Your task to perform on an android device: change timer sound Image 0: 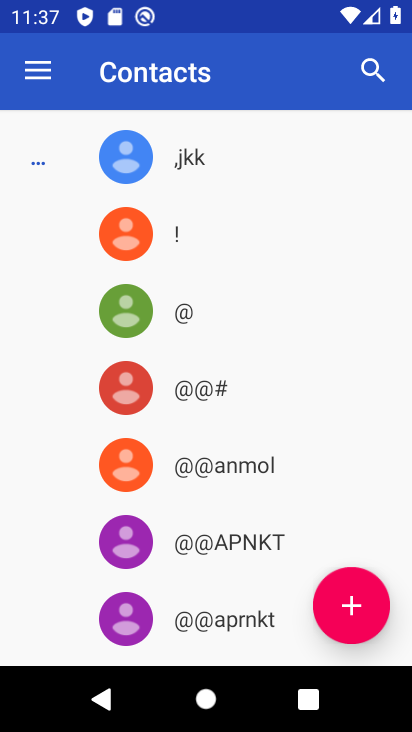
Step 0: press home button
Your task to perform on an android device: change timer sound Image 1: 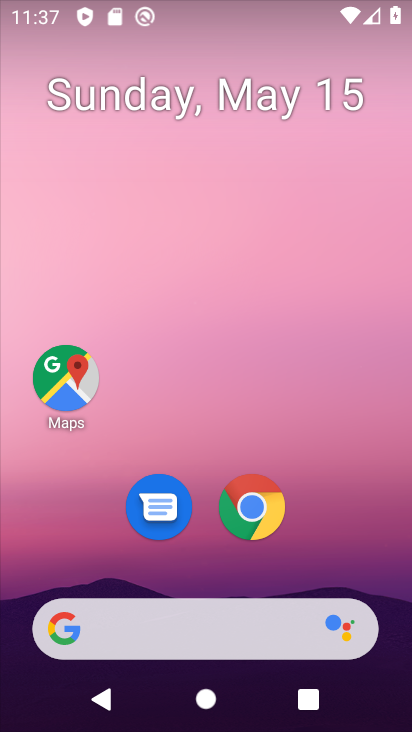
Step 1: drag from (368, 559) to (329, 15)
Your task to perform on an android device: change timer sound Image 2: 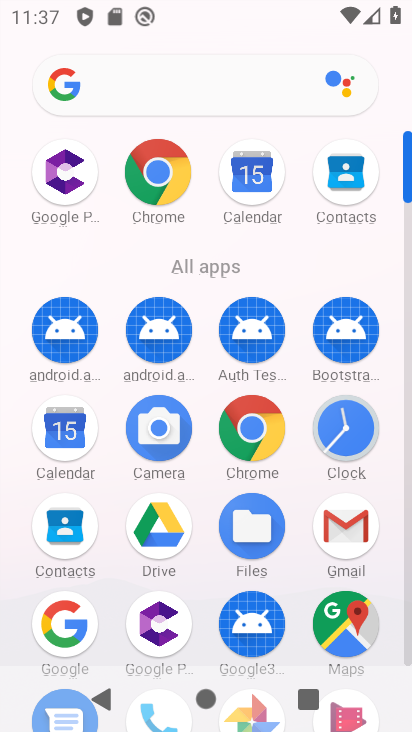
Step 2: click (358, 446)
Your task to perform on an android device: change timer sound Image 3: 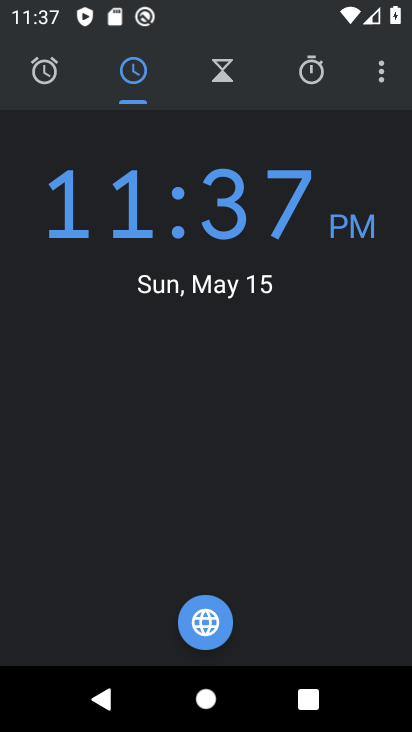
Step 3: click (391, 66)
Your task to perform on an android device: change timer sound Image 4: 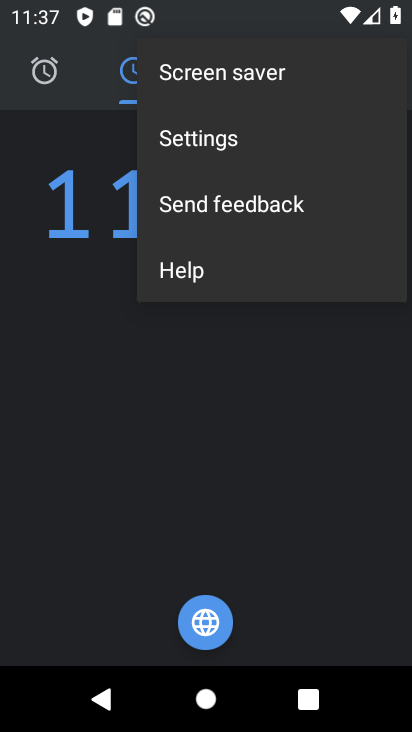
Step 4: click (236, 147)
Your task to perform on an android device: change timer sound Image 5: 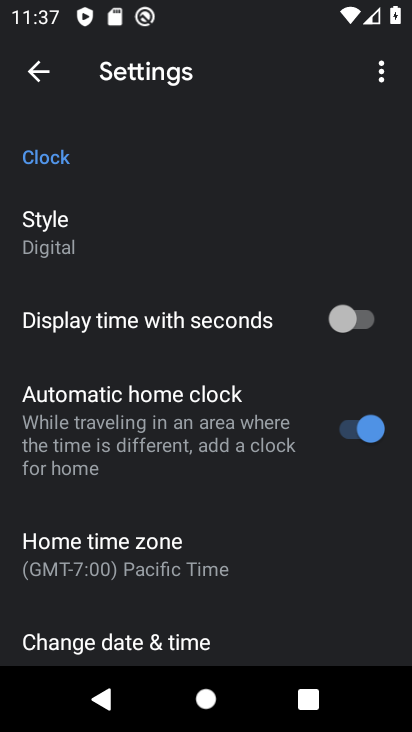
Step 5: drag from (252, 575) to (215, 349)
Your task to perform on an android device: change timer sound Image 6: 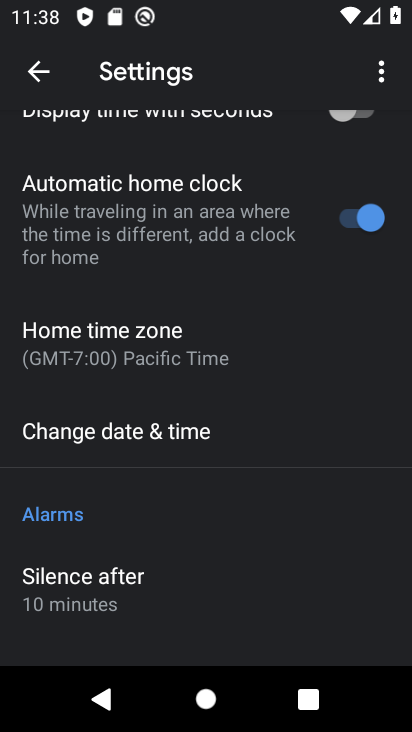
Step 6: drag from (194, 589) to (244, 250)
Your task to perform on an android device: change timer sound Image 7: 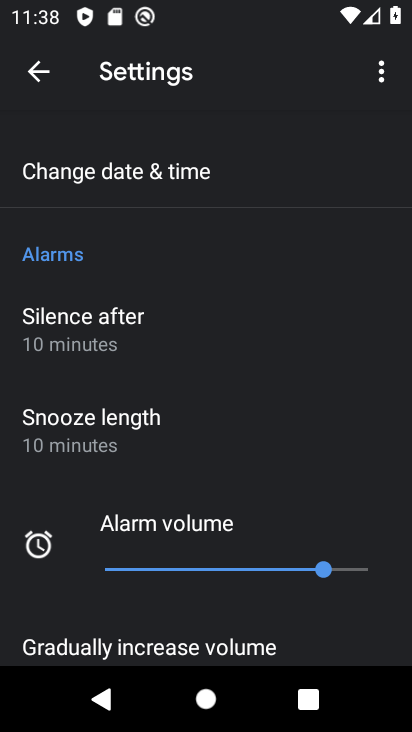
Step 7: drag from (217, 628) to (234, 243)
Your task to perform on an android device: change timer sound Image 8: 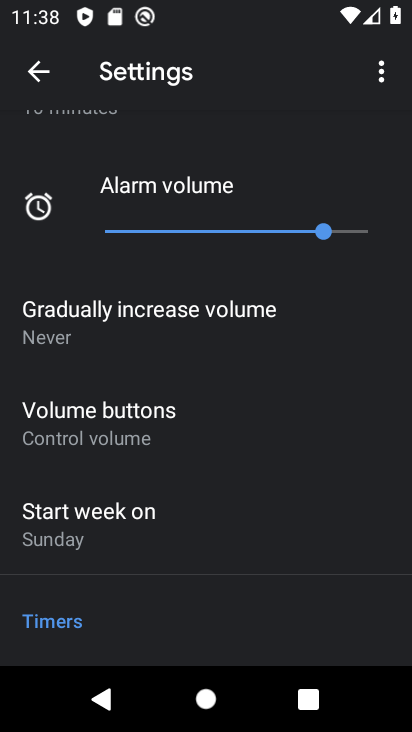
Step 8: drag from (221, 630) to (231, 256)
Your task to perform on an android device: change timer sound Image 9: 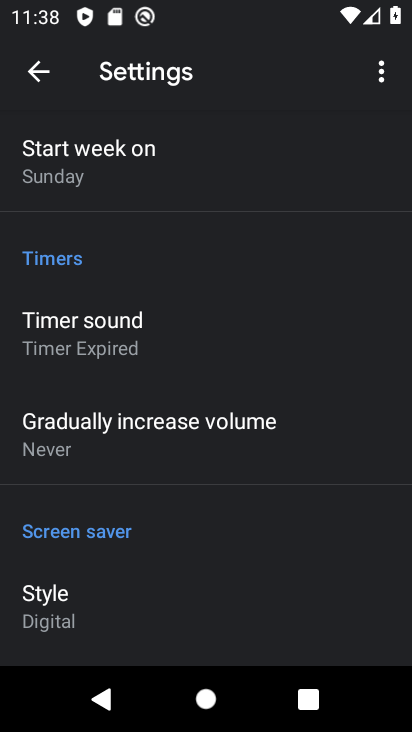
Step 9: click (174, 332)
Your task to perform on an android device: change timer sound Image 10: 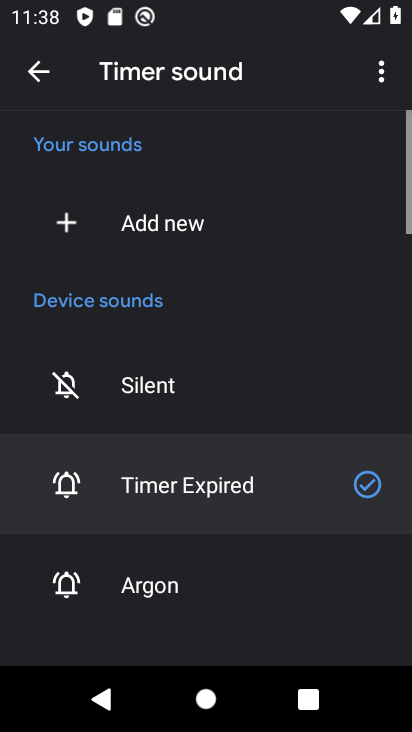
Step 10: click (194, 600)
Your task to perform on an android device: change timer sound Image 11: 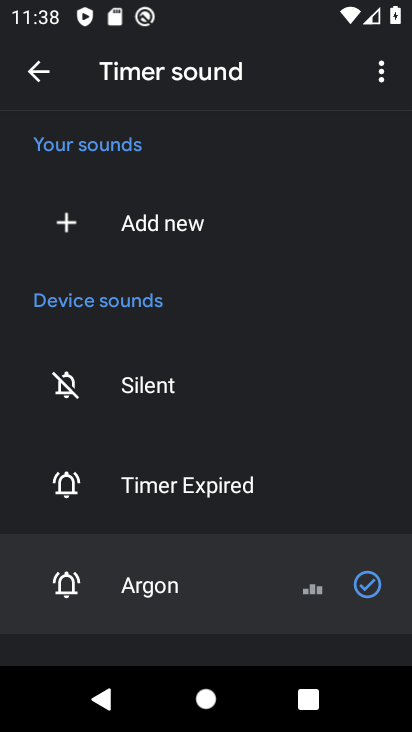
Step 11: task complete